Your task to perform on an android device: Open Google Image 0: 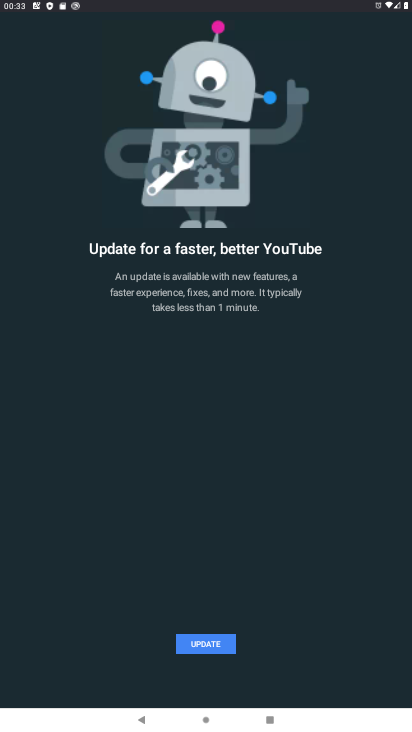
Step 0: press home button
Your task to perform on an android device: Open Google Image 1: 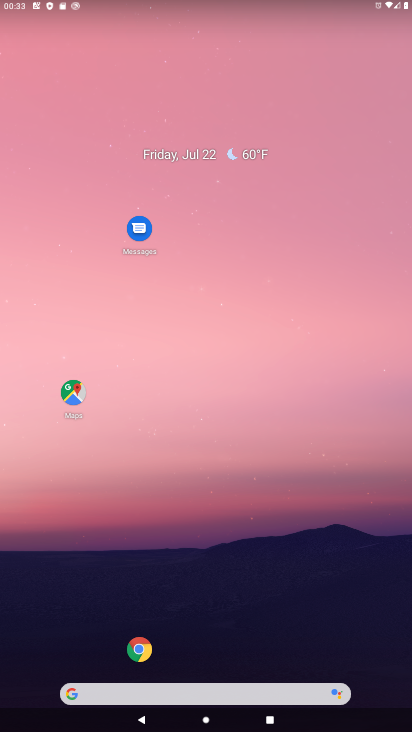
Step 1: click (130, 643)
Your task to perform on an android device: Open Google Image 2: 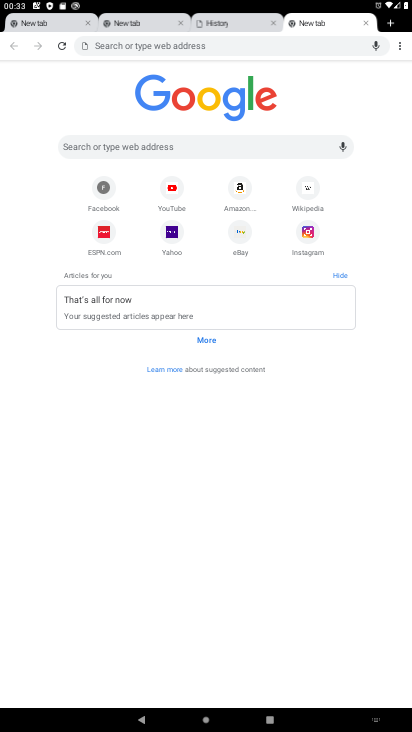
Step 2: task complete